Your task to perform on an android device: Open privacy settings Image 0: 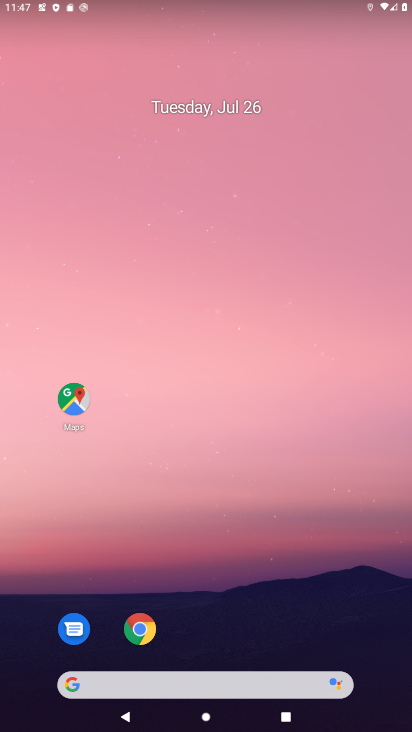
Step 0: drag from (225, 730) to (229, 152)
Your task to perform on an android device: Open privacy settings Image 1: 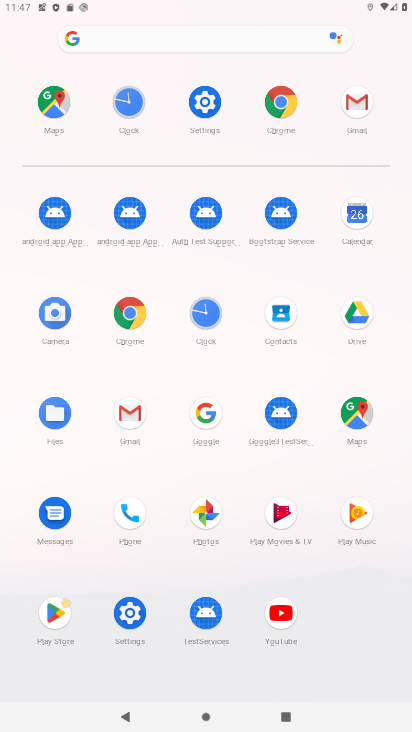
Step 1: click (203, 102)
Your task to perform on an android device: Open privacy settings Image 2: 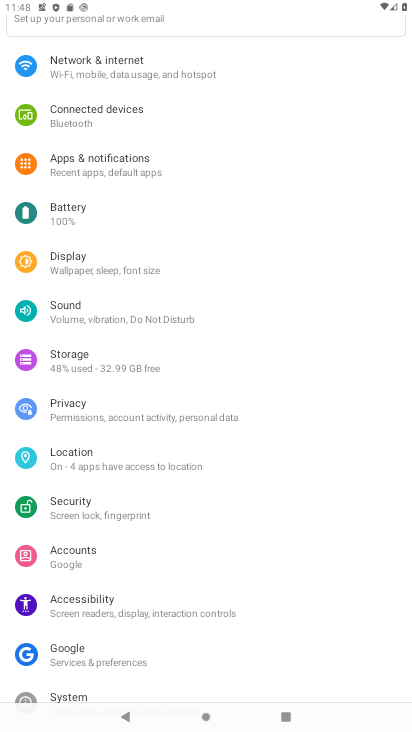
Step 2: click (76, 404)
Your task to perform on an android device: Open privacy settings Image 3: 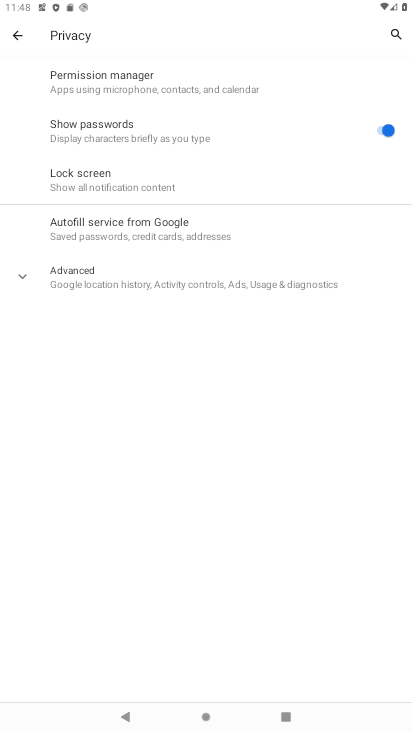
Step 3: task complete